Your task to perform on an android device: Search for vegetarian restaurants on Maps Image 0: 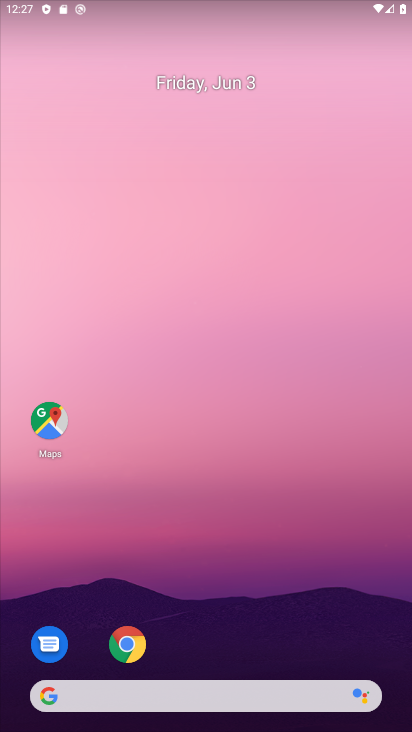
Step 0: drag from (227, 714) to (207, 17)
Your task to perform on an android device: Search for vegetarian restaurants on Maps Image 1: 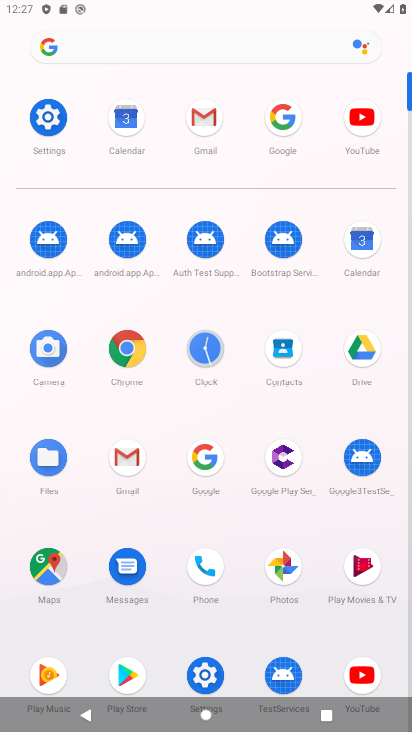
Step 1: click (39, 573)
Your task to perform on an android device: Search for vegetarian restaurants on Maps Image 2: 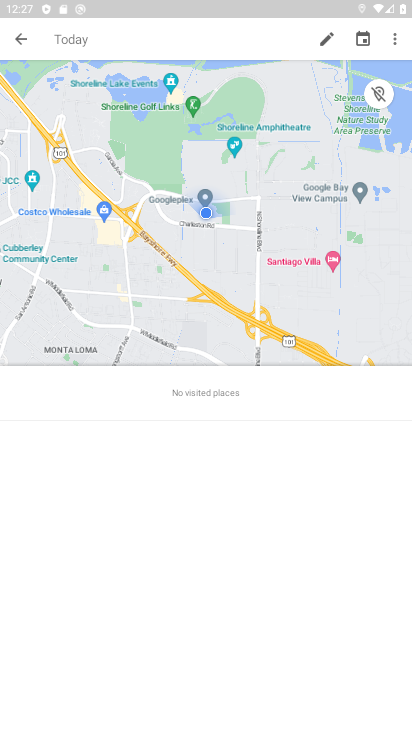
Step 2: click (24, 35)
Your task to perform on an android device: Search for vegetarian restaurants on Maps Image 3: 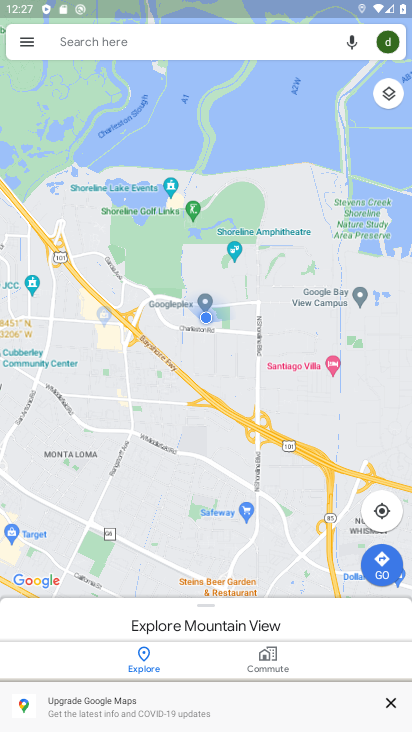
Step 3: click (171, 43)
Your task to perform on an android device: Search for vegetarian restaurants on Maps Image 4: 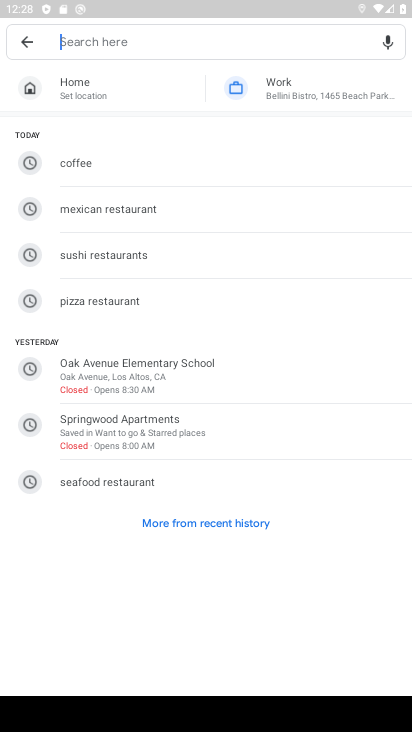
Step 4: type "vegetarian reataurants"
Your task to perform on an android device: Search for vegetarian restaurants on Maps Image 5: 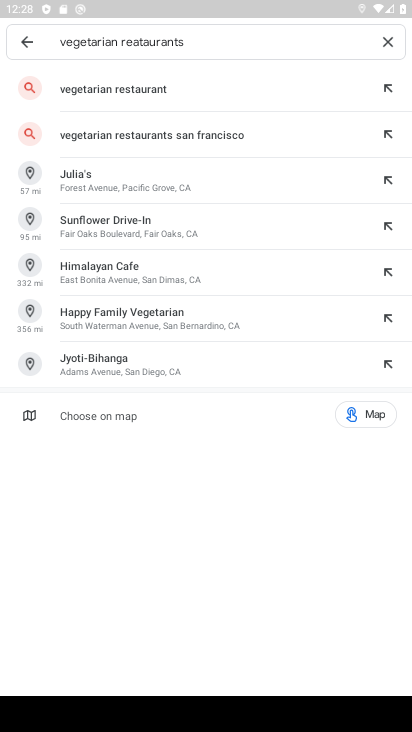
Step 5: click (151, 86)
Your task to perform on an android device: Search for vegetarian restaurants on Maps Image 6: 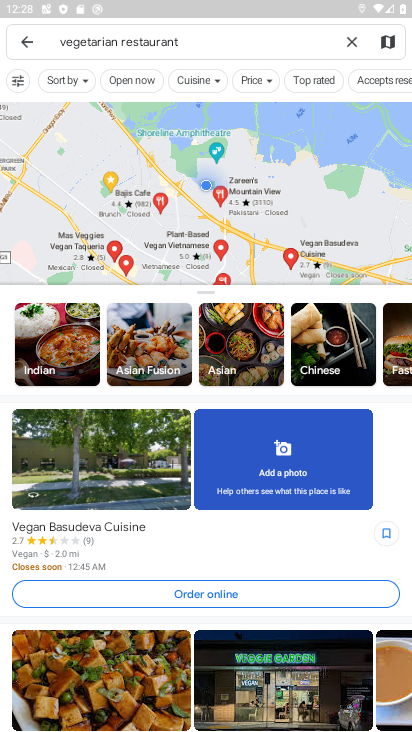
Step 6: task complete